Your task to perform on an android device: When is my next appointment? Image 0: 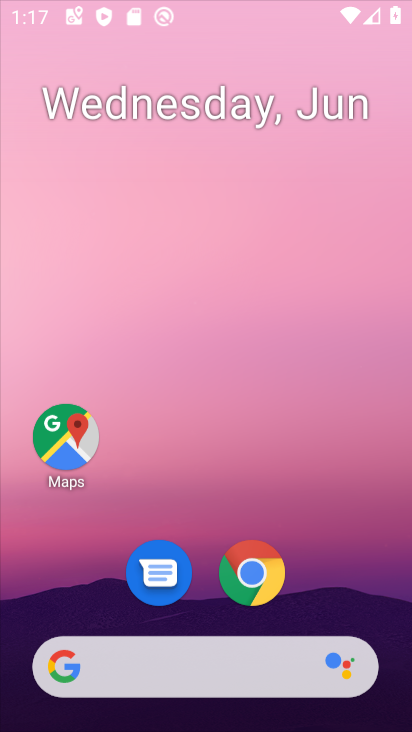
Step 0: click (305, 80)
Your task to perform on an android device: When is my next appointment? Image 1: 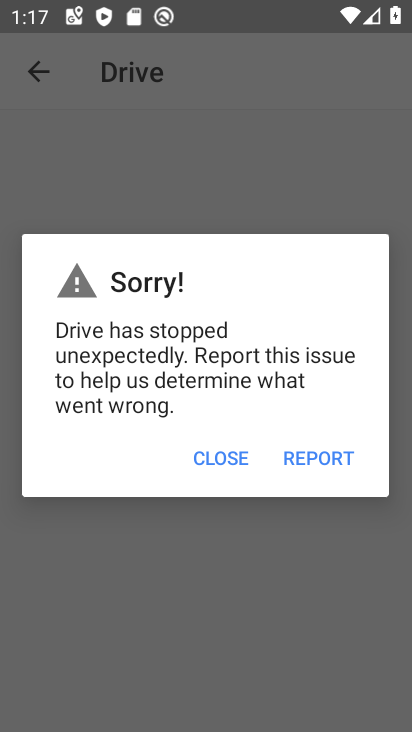
Step 1: press home button
Your task to perform on an android device: When is my next appointment? Image 2: 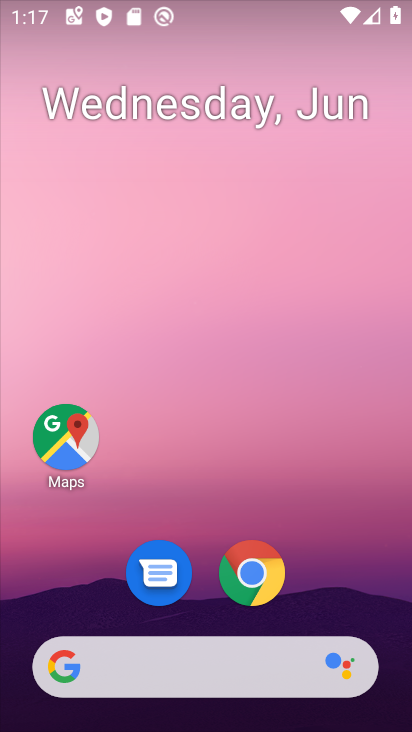
Step 2: drag from (310, 549) to (305, 123)
Your task to perform on an android device: When is my next appointment? Image 3: 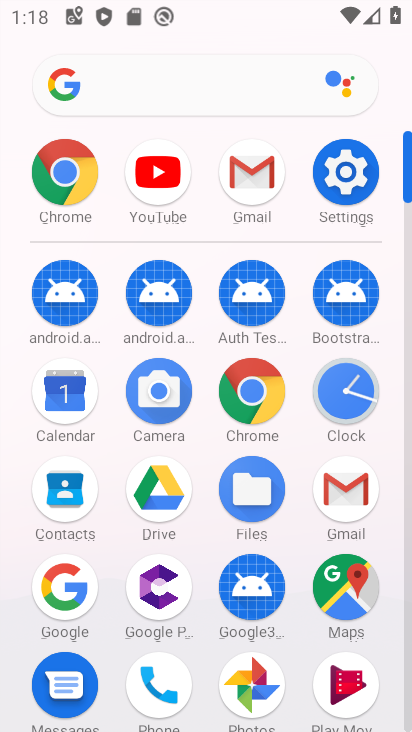
Step 3: drag from (202, 632) to (206, 412)
Your task to perform on an android device: When is my next appointment? Image 4: 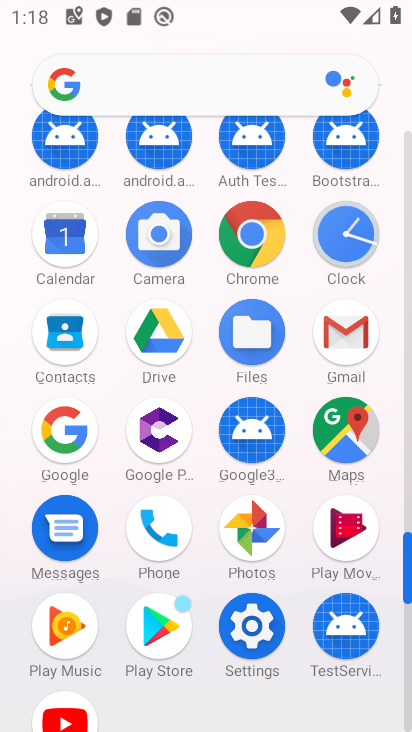
Step 4: click (57, 261)
Your task to perform on an android device: When is my next appointment? Image 5: 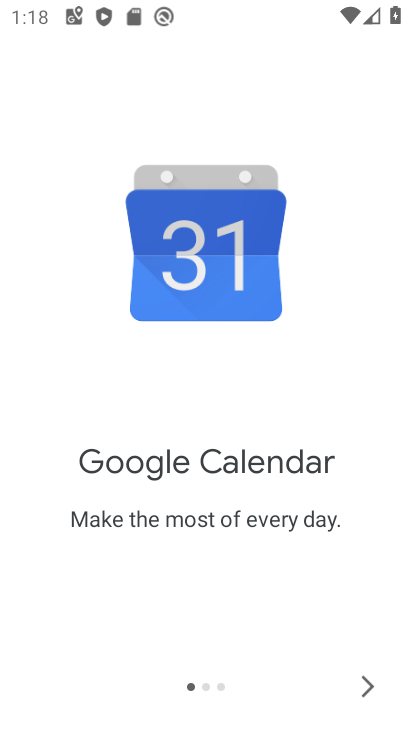
Step 5: click (376, 677)
Your task to perform on an android device: When is my next appointment? Image 6: 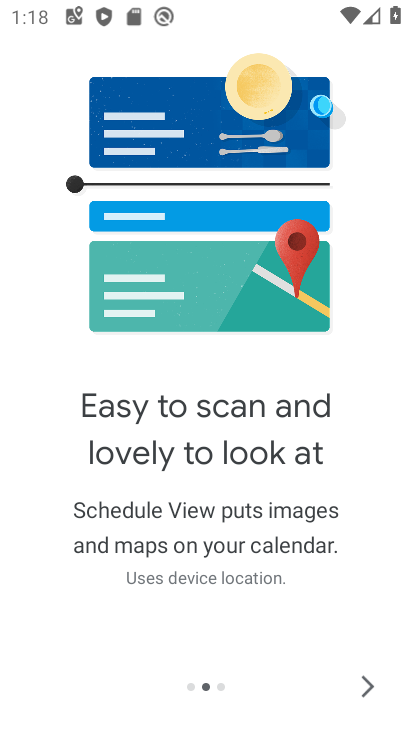
Step 6: click (372, 673)
Your task to perform on an android device: When is my next appointment? Image 7: 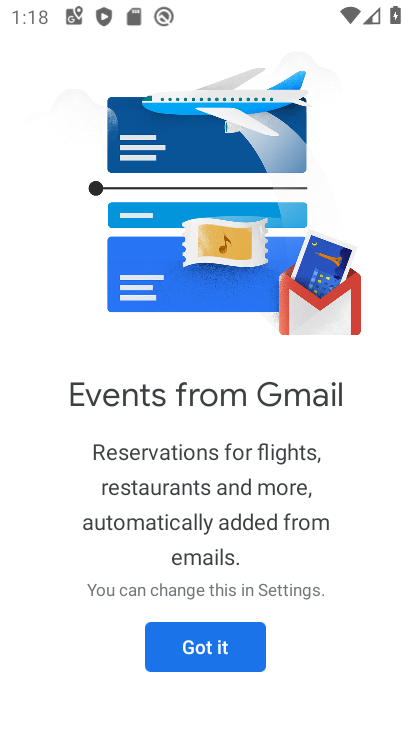
Step 7: click (257, 642)
Your task to perform on an android device: When is my next appointment? Image 8: 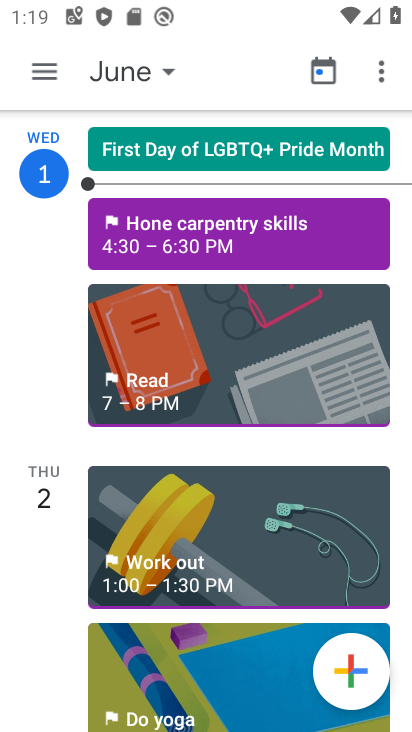
Step 8: task complete